Your task to perform on an android device: move an email to a new category in the gmail app Image 0: 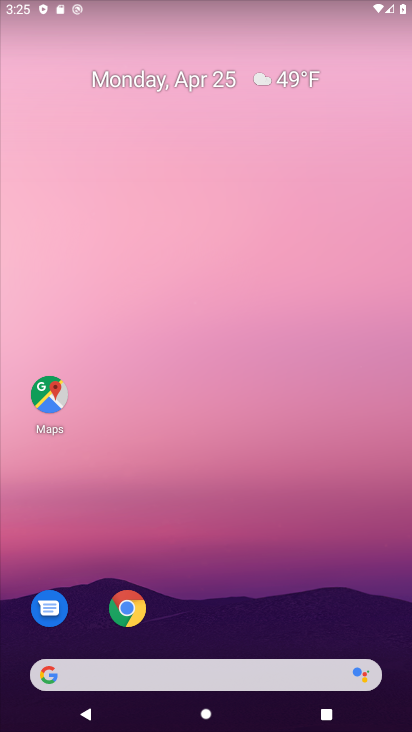
Step 0: click (280, 215)
Your task to perform on an android device: move an email to a new category in the gmail app Image 1: 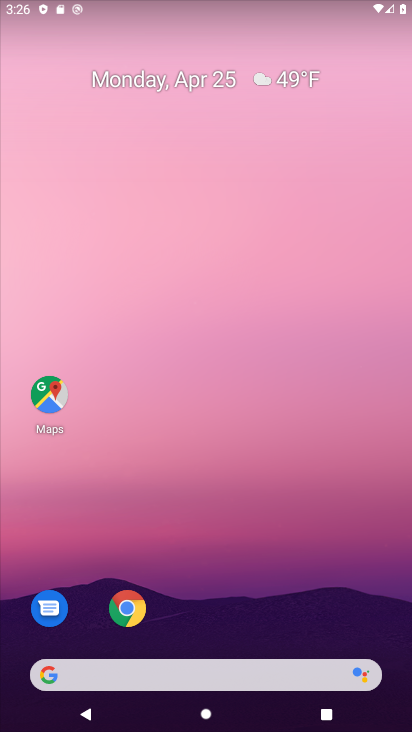
Step 1: drag from (207, 662) to (226, 18)
Your task to perform on an android device: move an email to a new category in the gmail app Image 2: 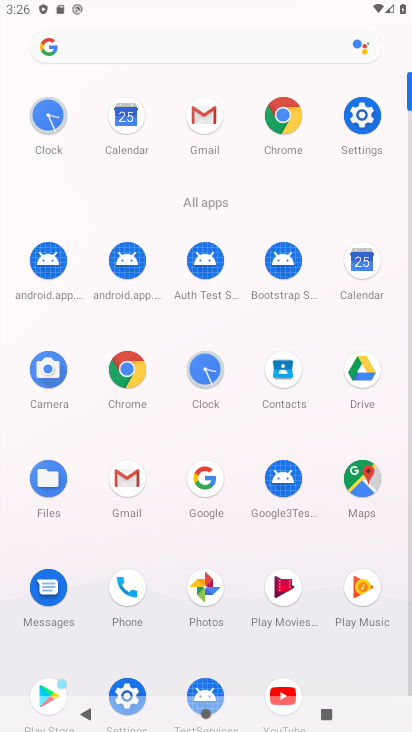
Step 2: click (131, 479)
Your task to perform on an android device: move an email to a new category in the gmail app Image 3: 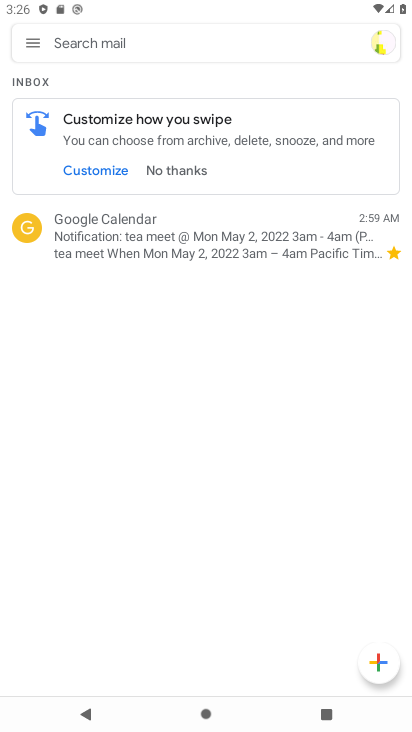
Step 3: click (22, 234)
Your task to perform on an android device: move an email to a new category in the gmail app Image 4: 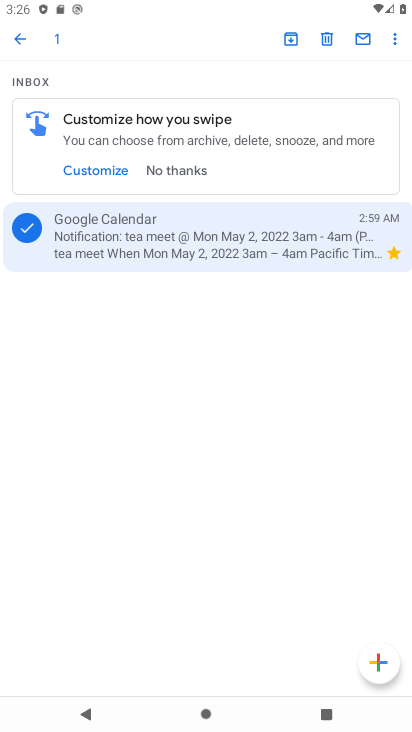
Step 4: click (394, 43)
Your task to perform on an android device: move an email to a new category in the gmail app Image 5: 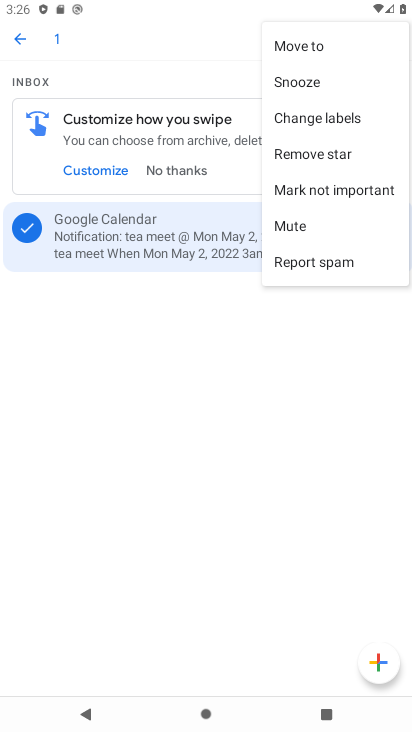
Step 5: click (319, 54)
Your task to perform on an android device: move an email to a new category in the gmail app Image 6: 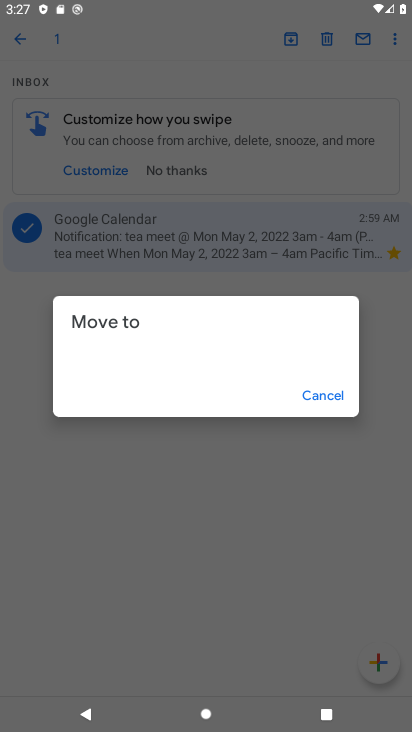
Step 6: drag from (141, 369) to (189, 87)
Your task to perform on an android device: move an email to a new category in the gmail app Image 7: 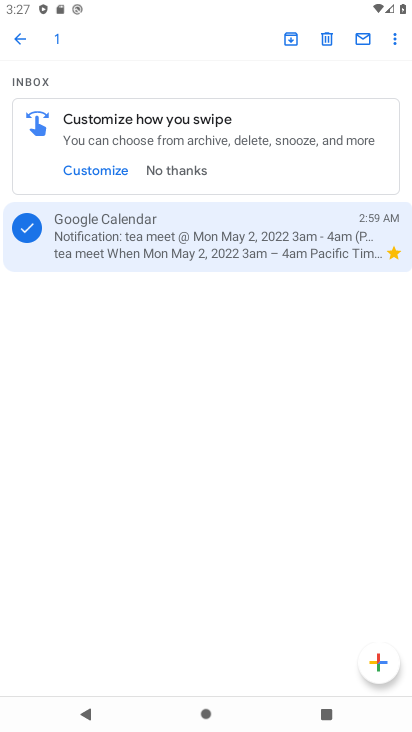
Step 7: click (401, 32)
Your task to perform on an android device: move an email to a new category in the gmail app Image 8: 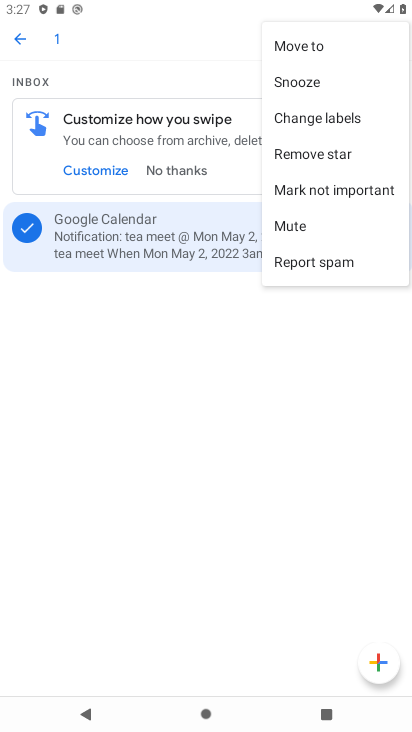
Step 8: click (332, 49)
Your task to perform on an android device: move an email to a new category in the gmail app Image 9: 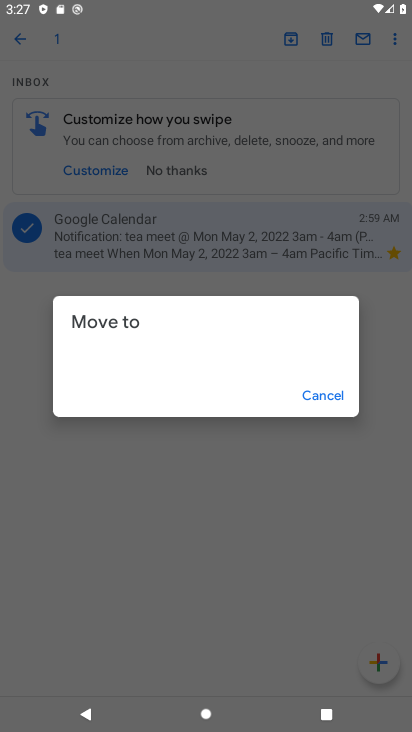
Step 9: task complete